Your task to perform on an android device: turn off data saver in the chrome app Image 0: 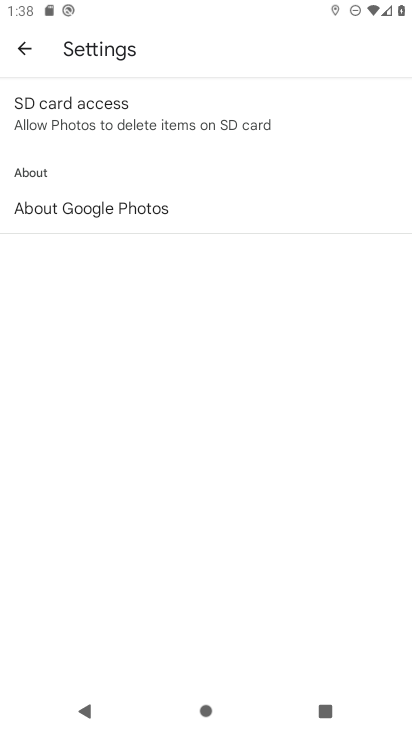
Step 0: press home button
Your task to perform on an android device: turn off data saver in the chrome app Image 1: 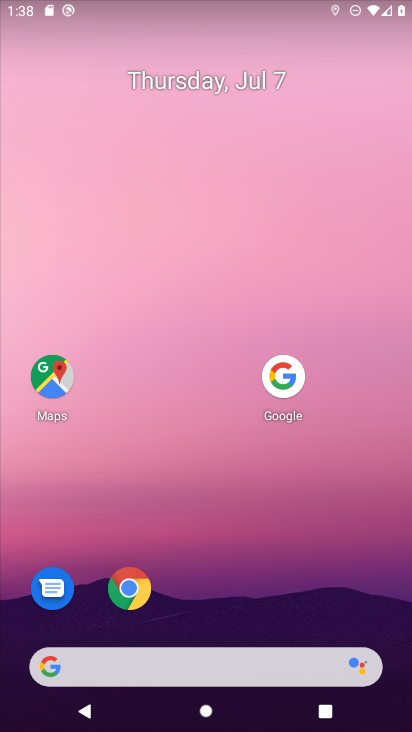
Step 1: drag from (232, 681) to (347, 211)
Your task to perform on an android device: turn off data saver in the chrome app Image 2: 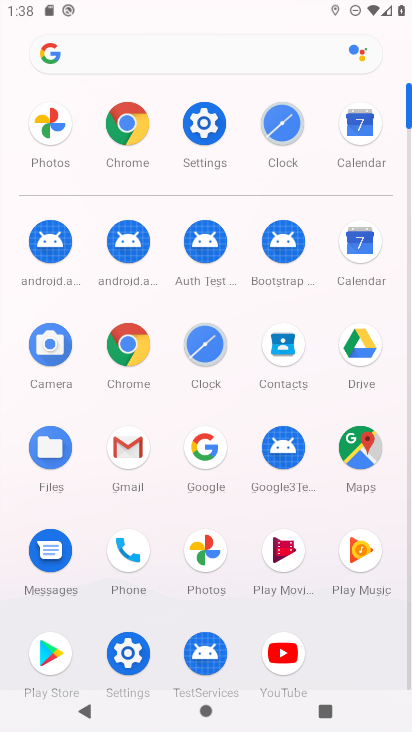
Step 2: click (116, 124)
Your task to perform on an android device: turn off data saver in the chrome app Image 3: 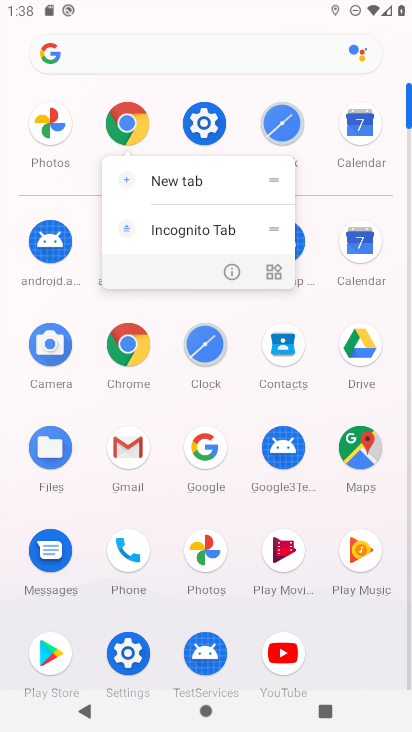
Step 3: click (130, 123)
Your task to perform on an android device: turn off data saver in the chrome app Image 4: 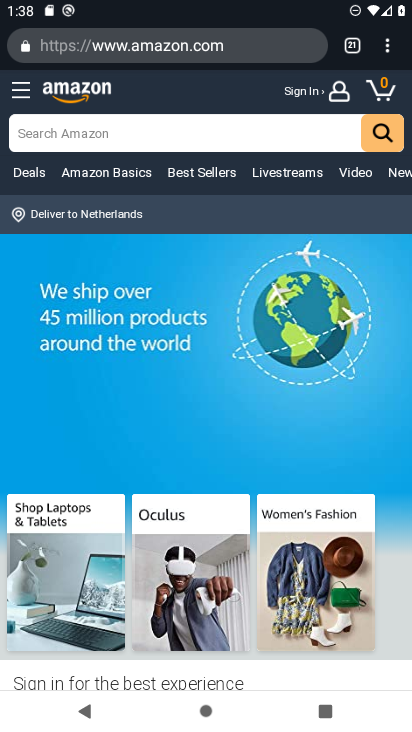
Step 4: drag from (390, 51) to (253, 540)
Your task to perform on an android device: turn off data saver in the chrome app Image 5: 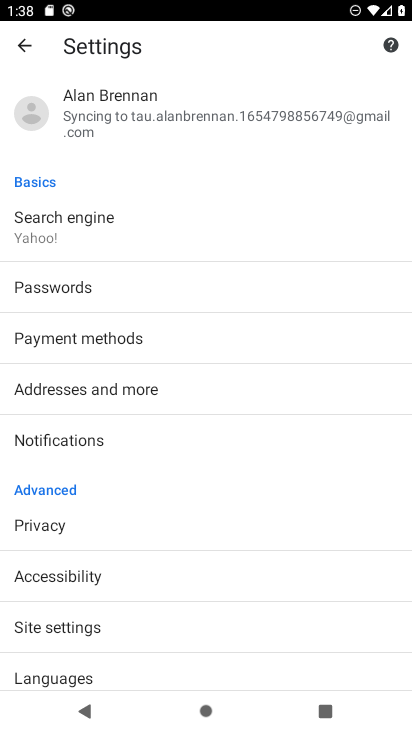
Step 5: drag from (213, 658) to (320, 124)
Your task to perform on an android device: turn off data saver in the chrome app Image 6: 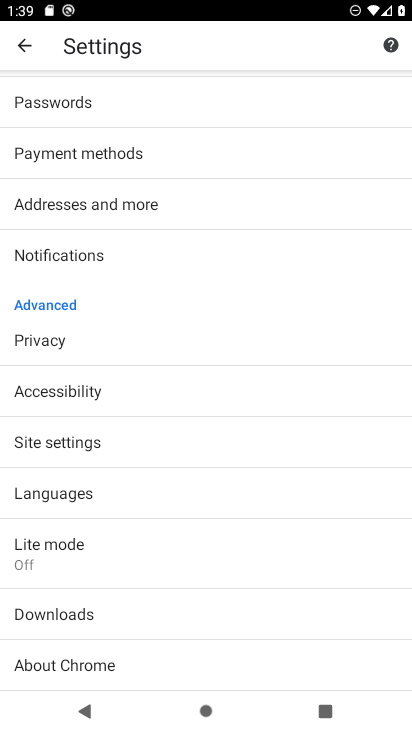
Step 6: click (82, 544)
Your task to perform on an android device: turn off data saver in the chrome app Image 7: 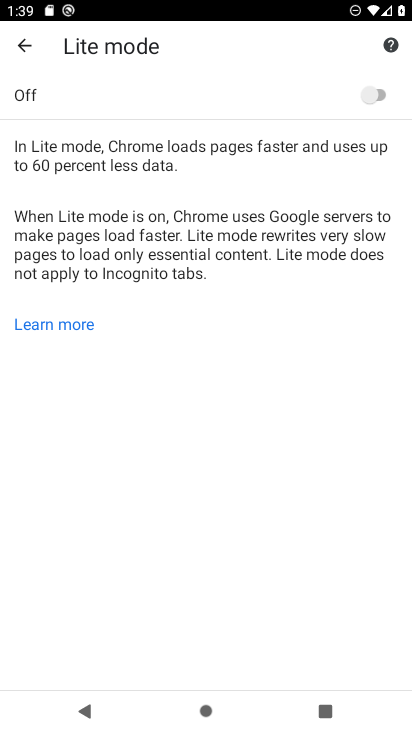
Step 7: task complete